Your task to perform on an android device: Search for Mexican restaurants on Maps Image 0: 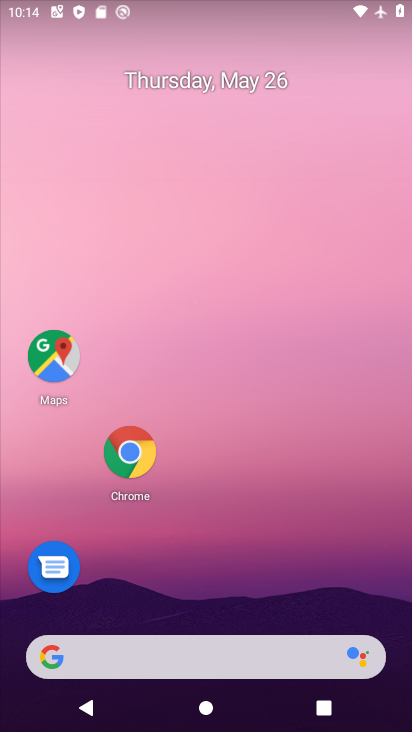
Step 0: click (55, 357)
Your task to perform on an android device: Search for Mexican restaurants on Maps Image 1: 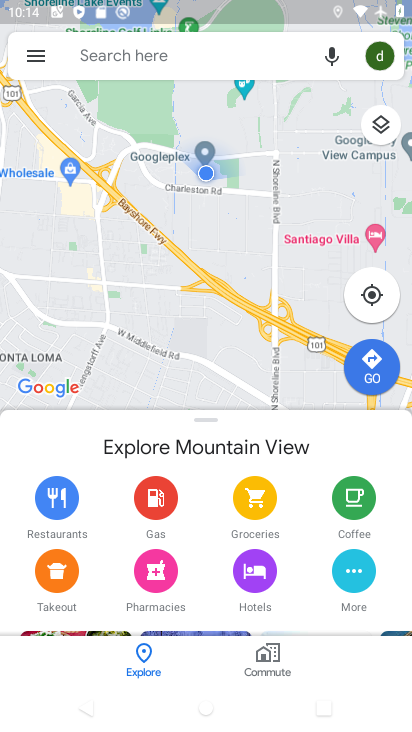
Step 1: click (206, 59)
Your task to perform on an android device: Search for Mexican restaurants on Maps Image 2: 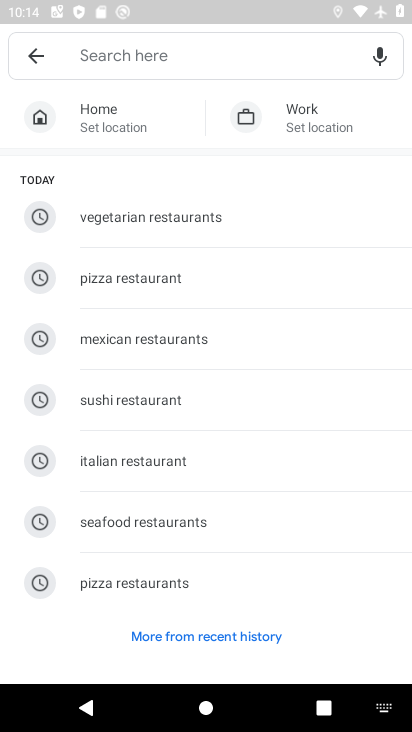
Step 2: click (156, 334)
Your task to perform on an android device: Search for Mexican restaurants on Maps Image 3: 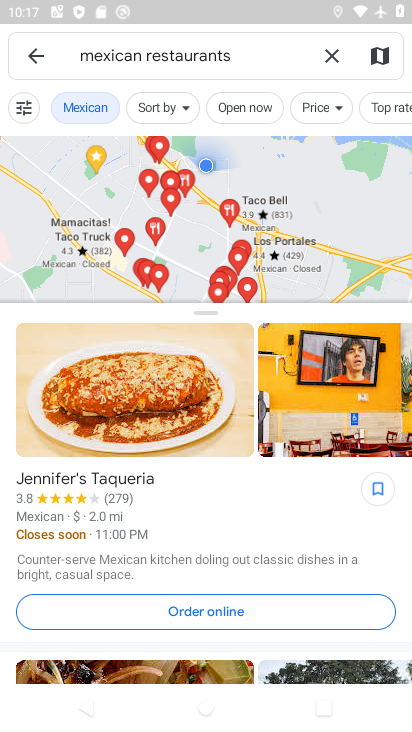
Step 3: task complete